Your task to perform on an android device: show emergency info Image 0: 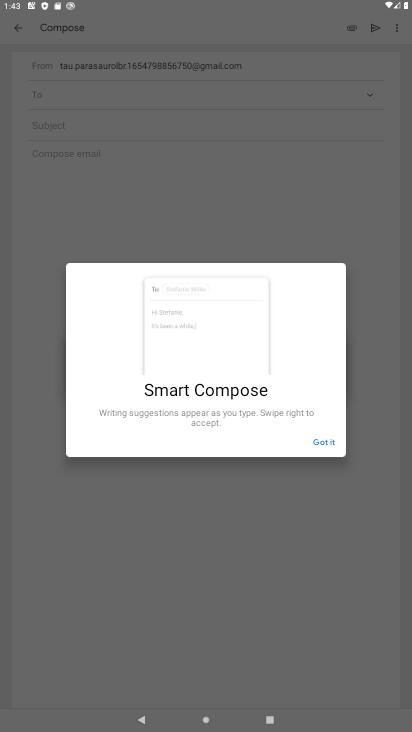
Step 0: press home button
Your task to perform on an android device: show emergency info Image 1: 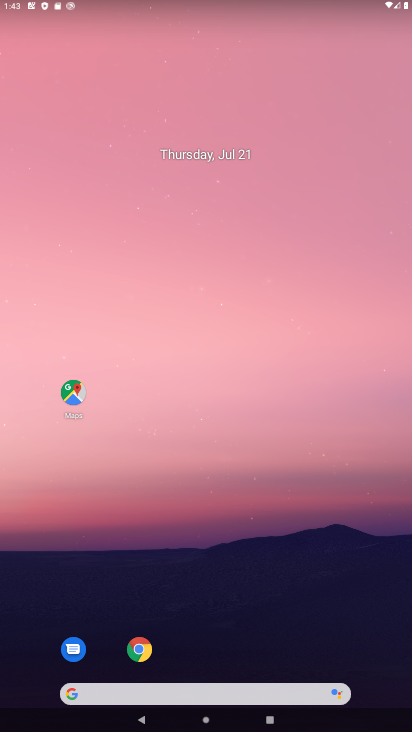
Step 1: drag from (226, 728) to (199, 180)
Your task to perform on an android device: show emergency info Image 2: 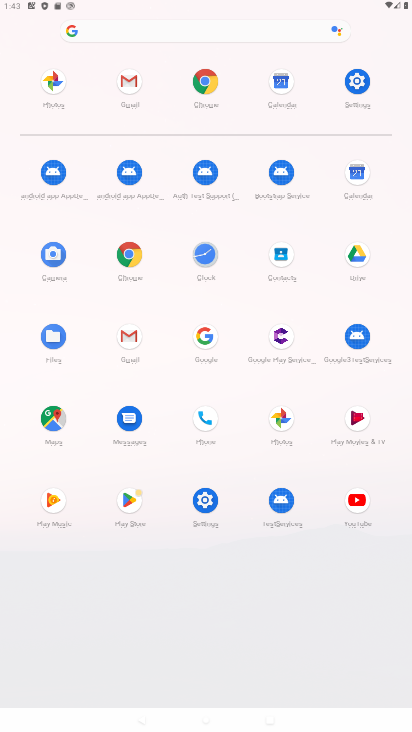
Step 2: click (357, 76)
Your task to perform on an android device: show emergency info Image 3: 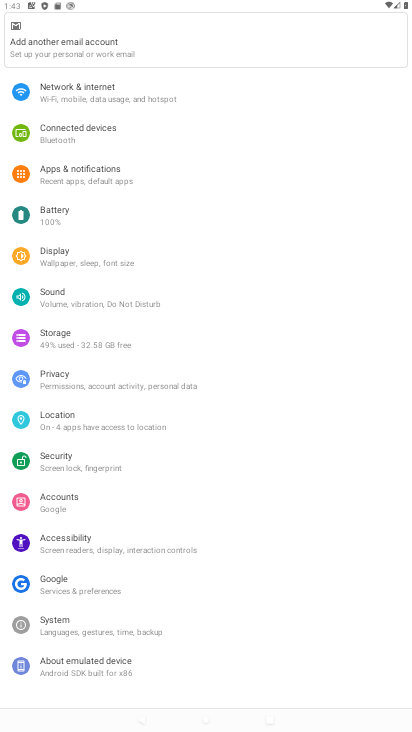
Step 3: click (82, 667)
Your task to perform on an android device: show emergency info Image 4: 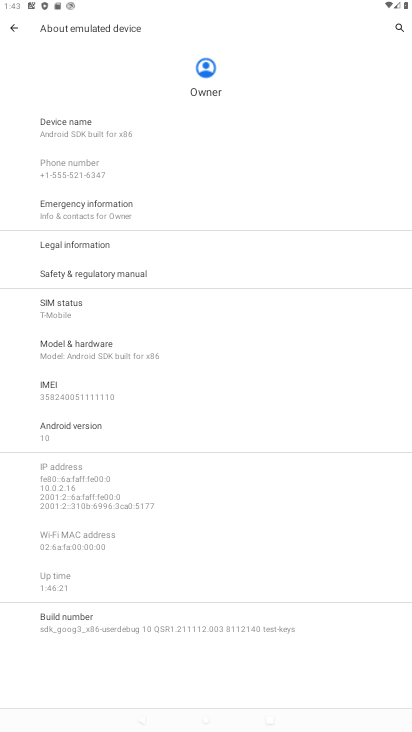
Step 4: task complete